Your task to perform on an android device: Go to CNN.com Image 0: 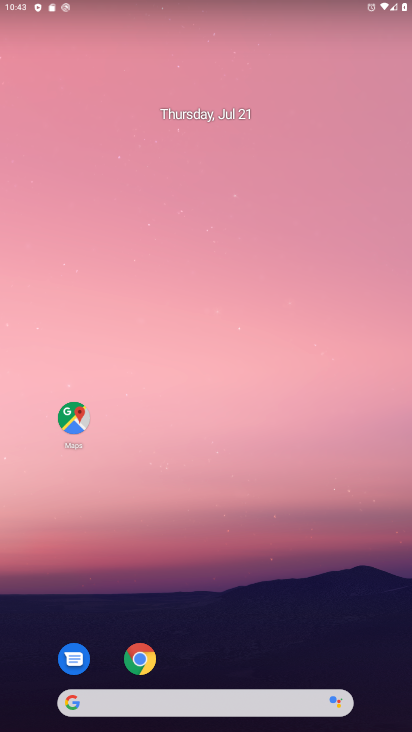
Step 0: click (138, 650)
Your task to perform on an android device: Go to CNN.com Image 1: 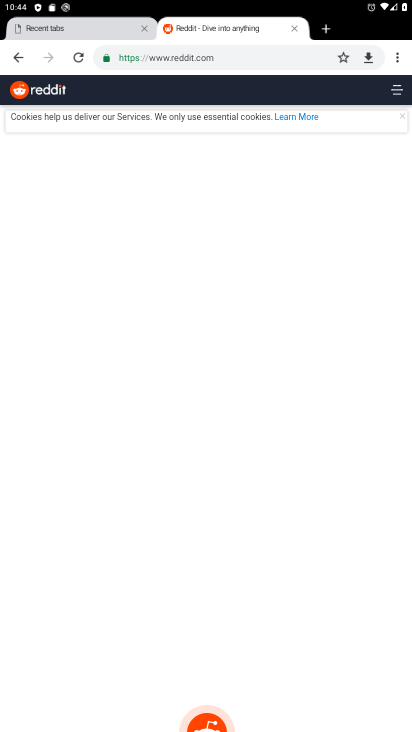
Step 1: click (195, 55)
Your task to perform on an android device: Go to CNN.com Image 2: 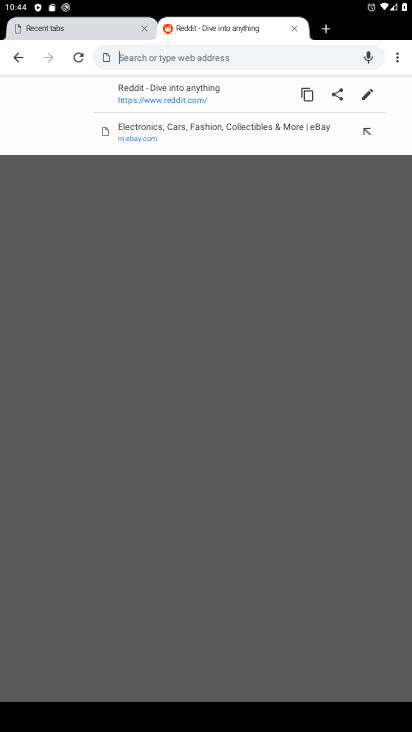
Step 2: type "cnn.com"
Your task to perform on an android device: Go to CNN.com Image 3: 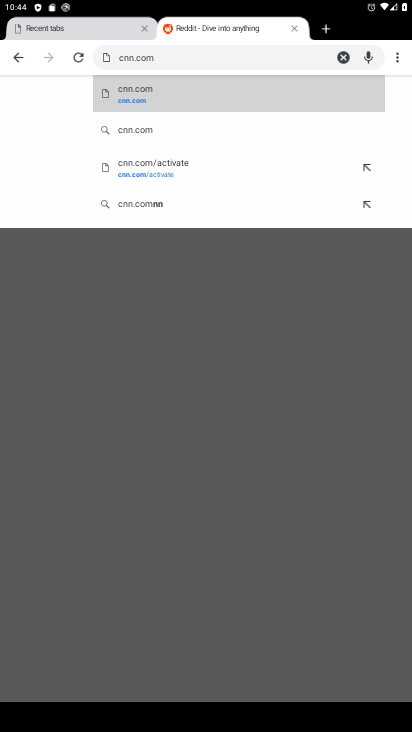
Step 3: click (133, 89)
Your task to perform on an android device: Go to CNN.com Image 4: 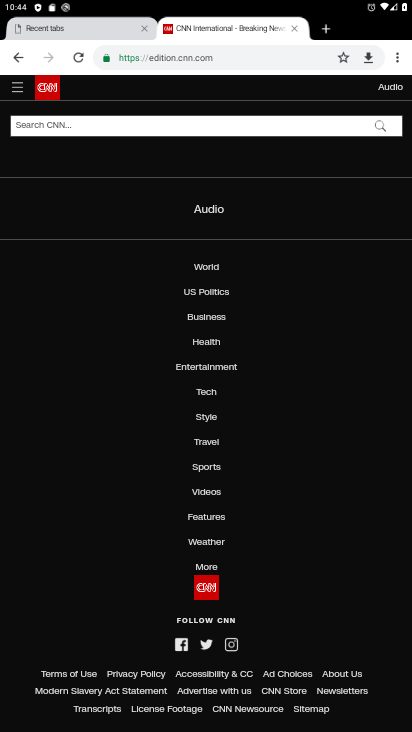
Step 4: task complete